Your task to perform on an android device: uninstall "eBay: The shopping marketplace" Image 0: 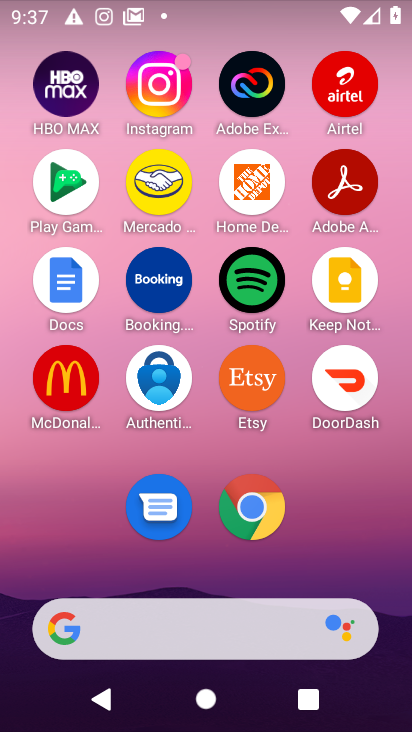
Step 0: drag from (207, 559) to (298, 17)
Your task to perform on an android device: uninstall "eBay: The shopping marketplace" Image 1: 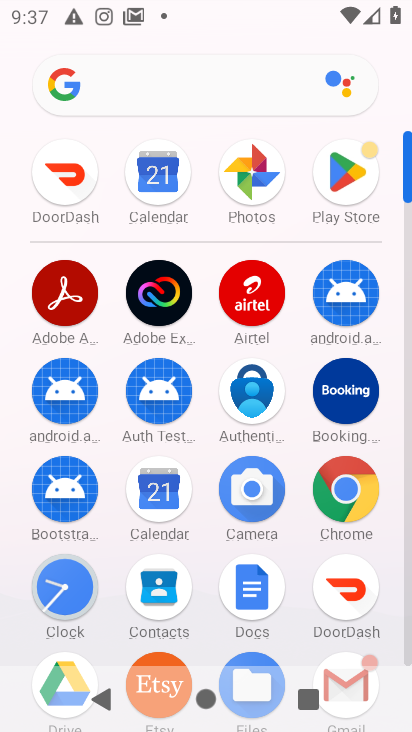
Step 1: click (352, 197)
Your task to perform on an android device: uninstall "eBay: The shopping marketplace" Image 2: 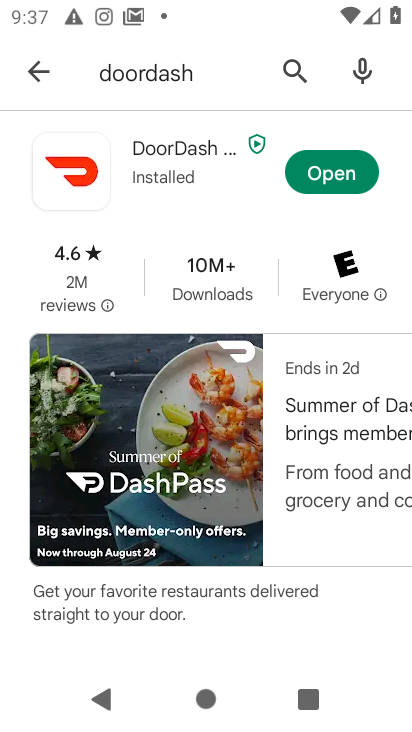
Step 2: click (34, 66)
Your task to perform on an android device: uninstall "eBay: The shopping marketplace" Image 3: 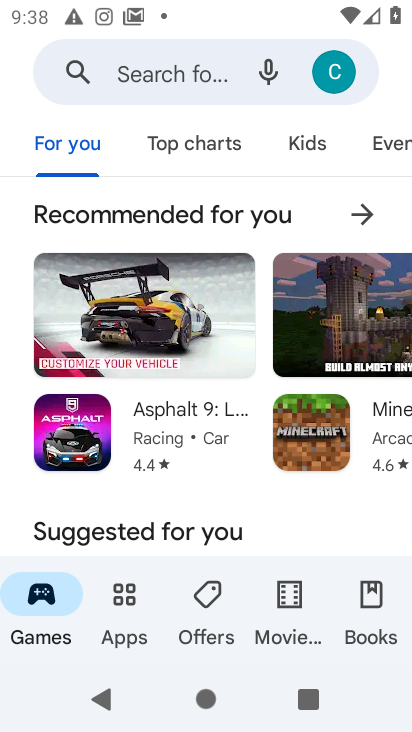
Step 3: click (165, 81)
Your task to perform on an android device: uninstall "eBay: The shopping marketplace" Image 4: 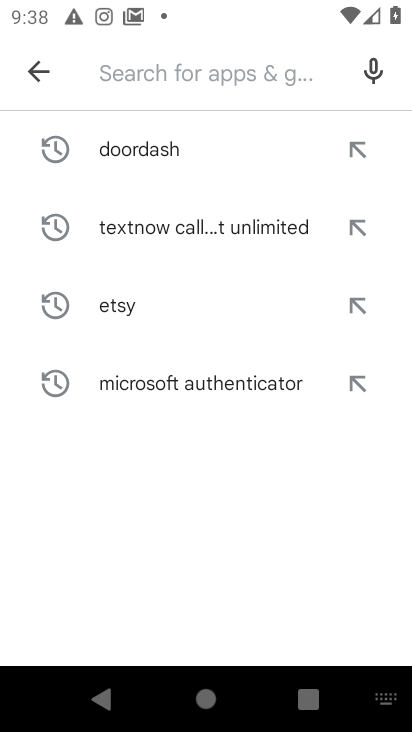
Step 4: type "eBay"
Your task to perform on an android device: uninstall "eBay: The shopping marketplace" Image 5: 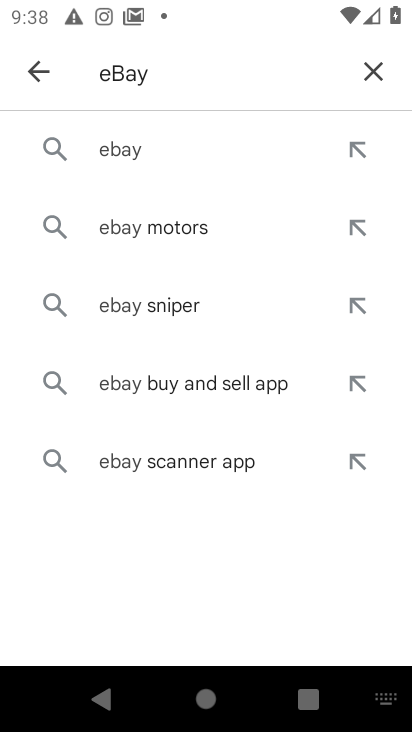
Step 5: click (127, 148)
Your task to perform on an android device: uninstall "eBay: The shopping marketplace" Image 6: 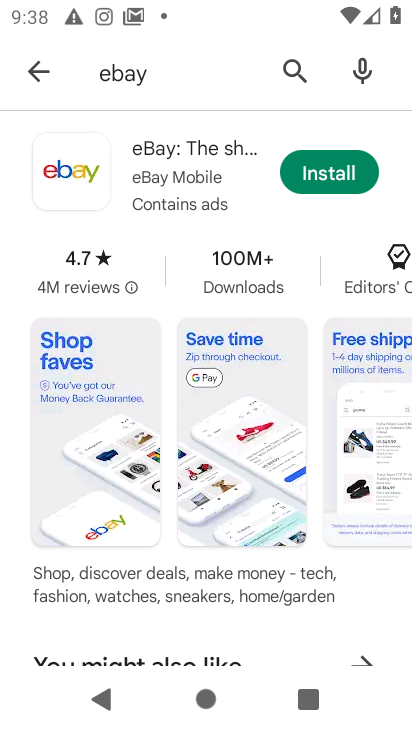
Step 6: click (327, 183)
Your task to perform on an android device: uninstall "eBay: The shopping marketplace" Image 7: 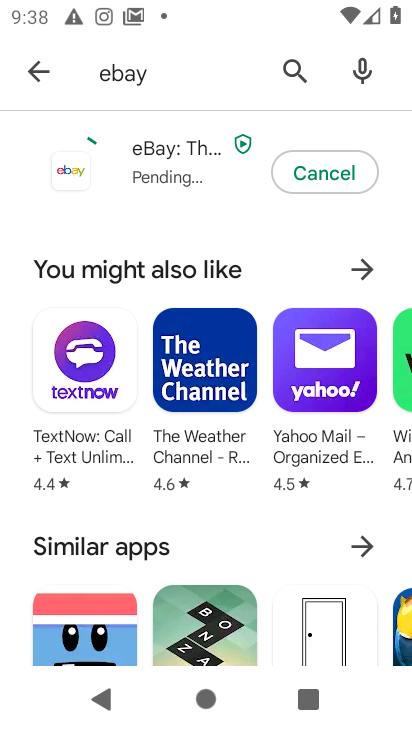
Step 7: task complete